Your task to perform on an android device: delete browsing data in the chrome app Image 0: 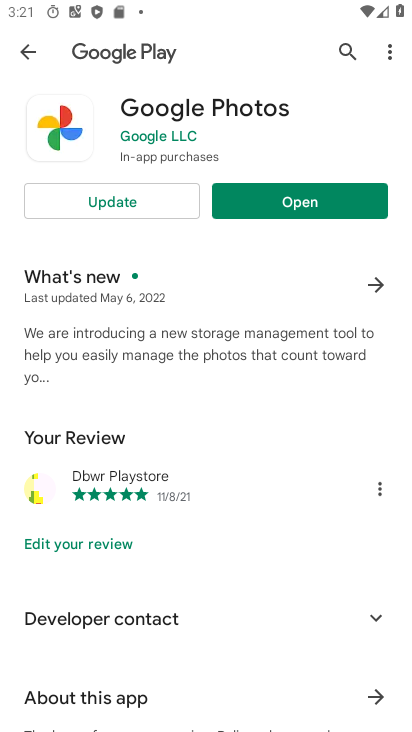
Step 0: task complete